Your task to perform on an android device: Open Maps and search for coffee Image 0: 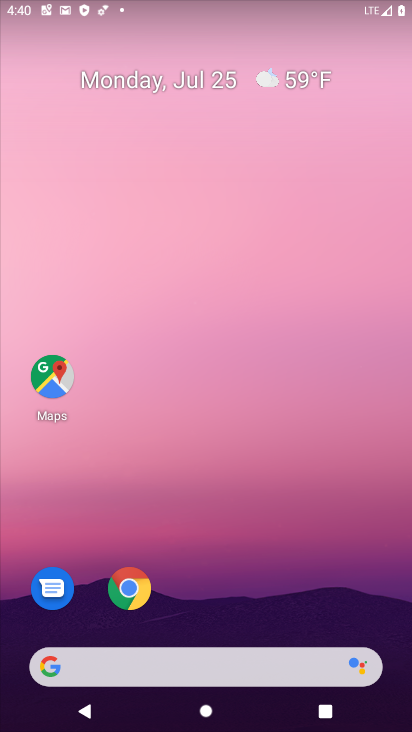
Step 0: drag from (280, 594) to (326, 87)
Your task to perform on an android device: Open Maps and search for coffee Image 1: 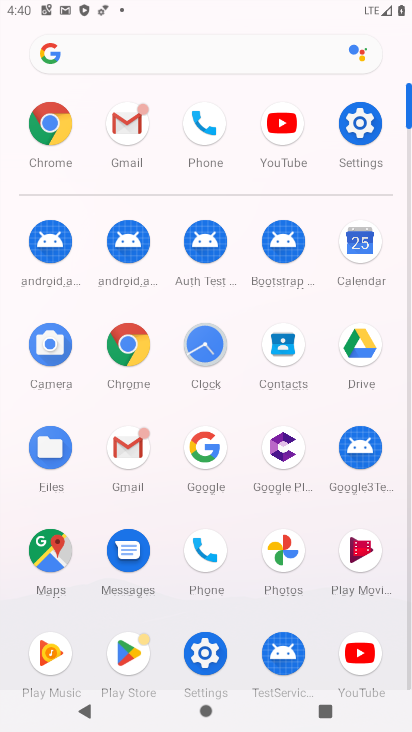
Step 1: click (52, 552)
Your task to perform on an android device: Open Maps and search for coffee Image 2: 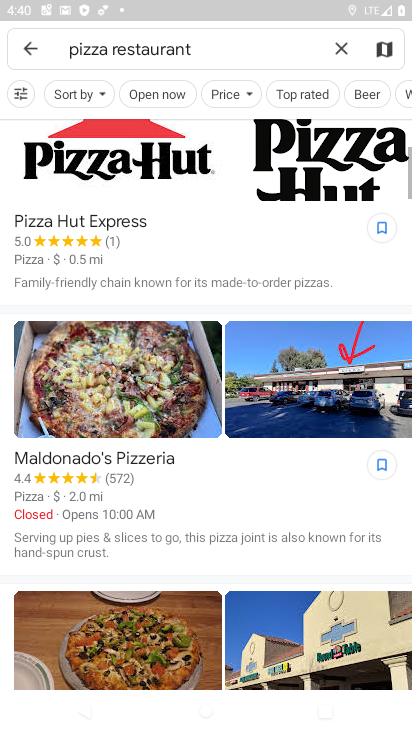
Step 2: click (344, 48)
Your task to perform on an android device: Open Maps and search for coffee Image 3: 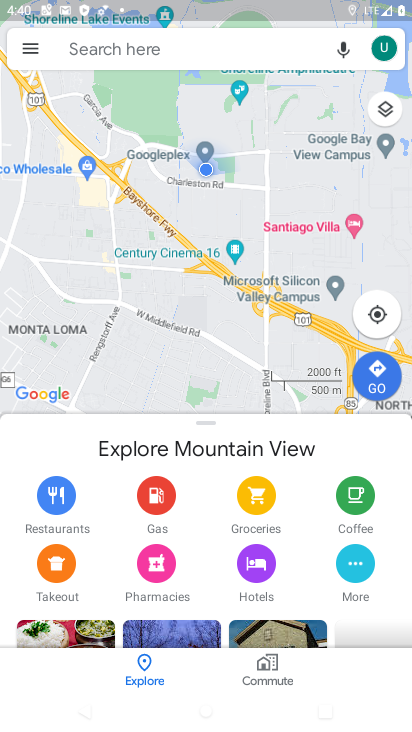
Step 3: click (230, 51)
Your task to perform on an android device: Open Maps and search for coffee Image 4: 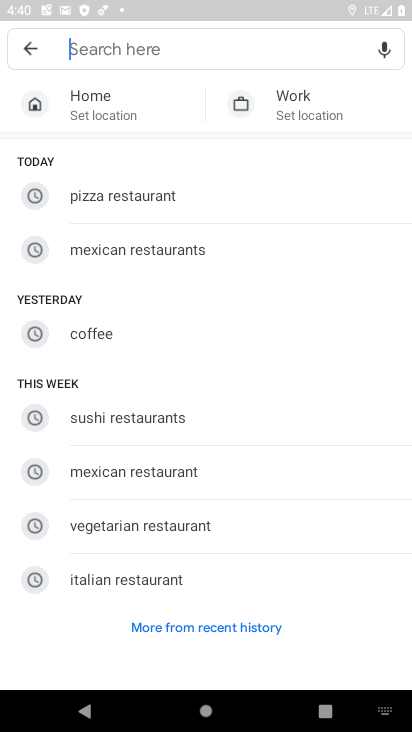
Step 4: type "coffee"
Your task to perform on an android device: Open Maps and search for coffee Image 5: 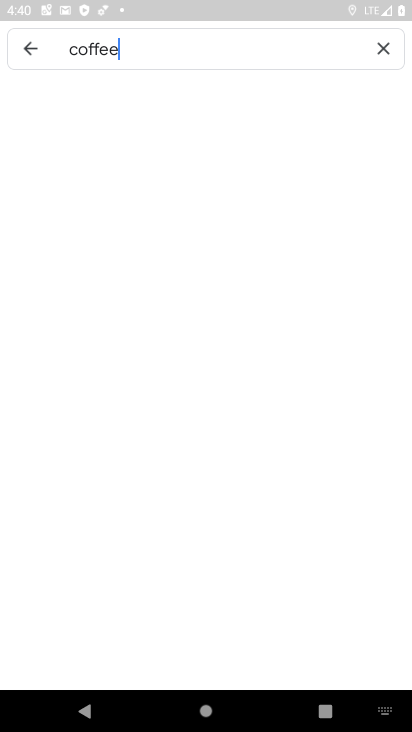
Step 5: type ""
Your task to perform on an android device: Open Maps and search for coffee Image 6: 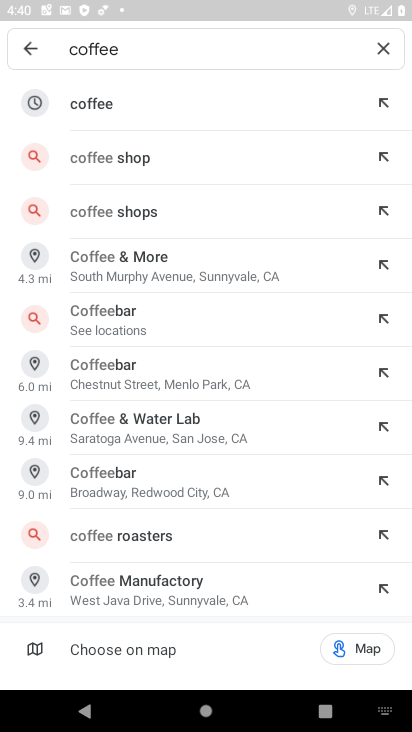
Step 6: click (104, 98)
Your task to perform on an android device: Open Maps and search for coffee Image 7: 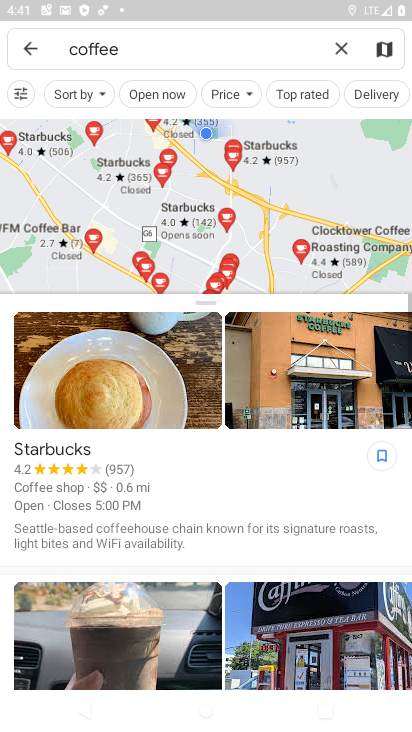
Step 7: task complete